Your task to perform on an android device: uninstall "Pinterest" Image 0: 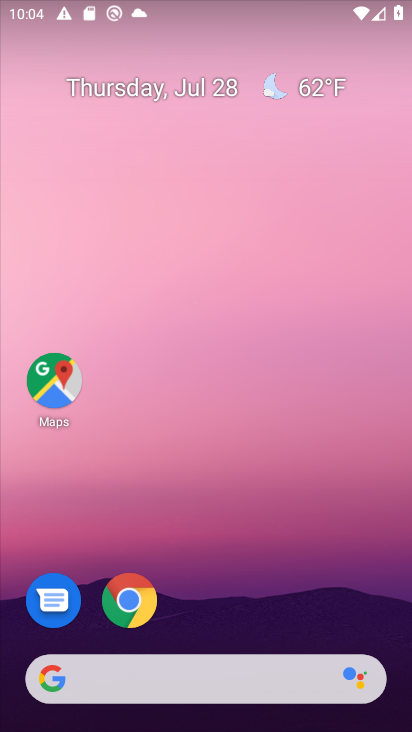
Step 0: drag from (242, 621) to (245, 7)
Your task to perform on an android device: uninstall "Pinterest" Image 1: 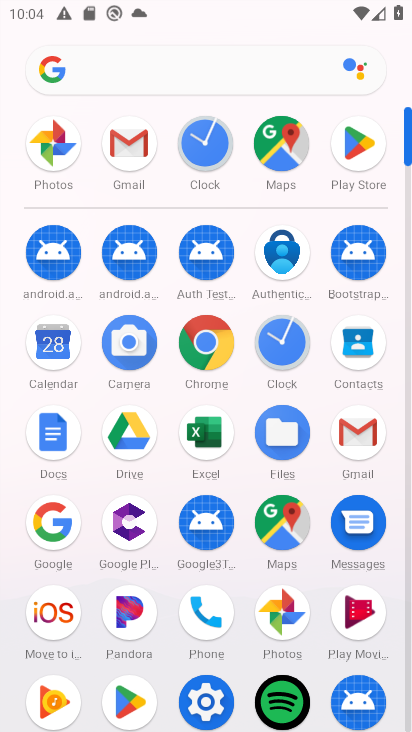
Step 1: click (349, 148)
Your task to perform on an android device: uninstall "Pinterest" Image 2: 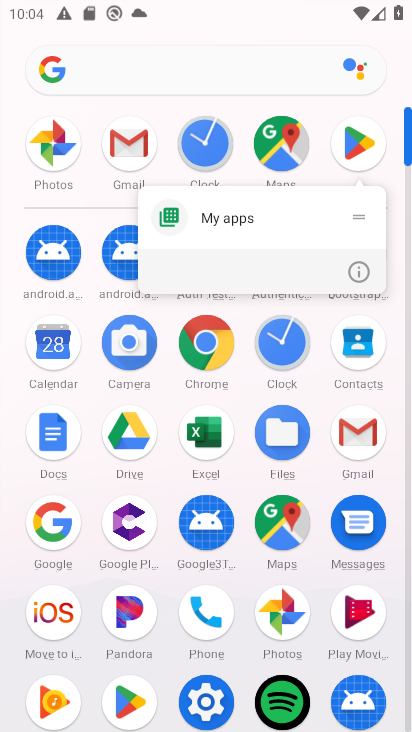
Step 2: click (349, 148)
Your task to perform on an android device: uninstall "Pinterest" Image 3: 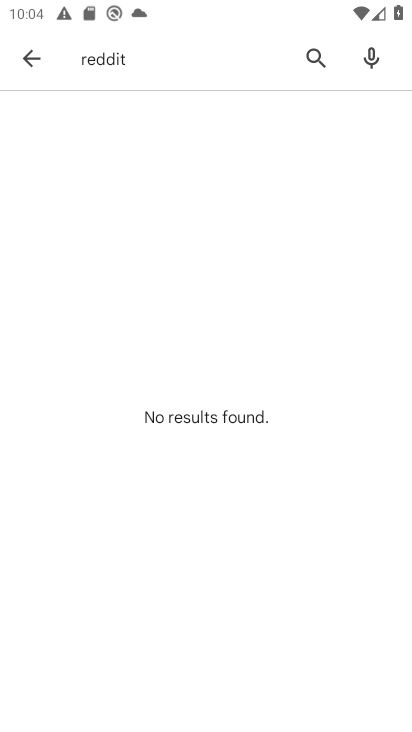
Step 3: click (311, 47)
Your task to perform on an android device: uninstall "Pinterest" Image 4: 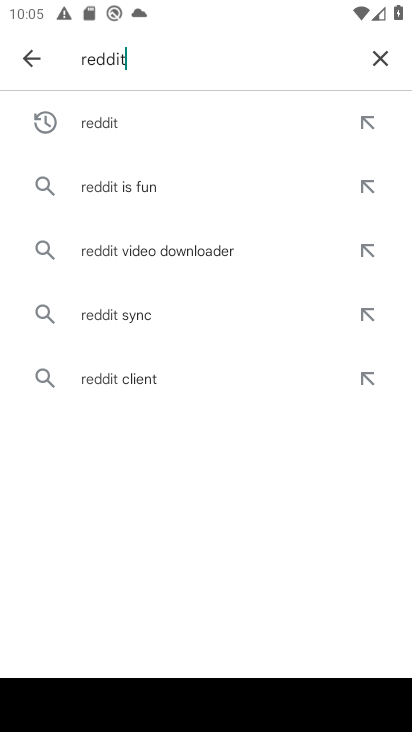
Step 4: click (389, 64)
Your task to perform on an android device: uninstall "Pinterest" Image 5: 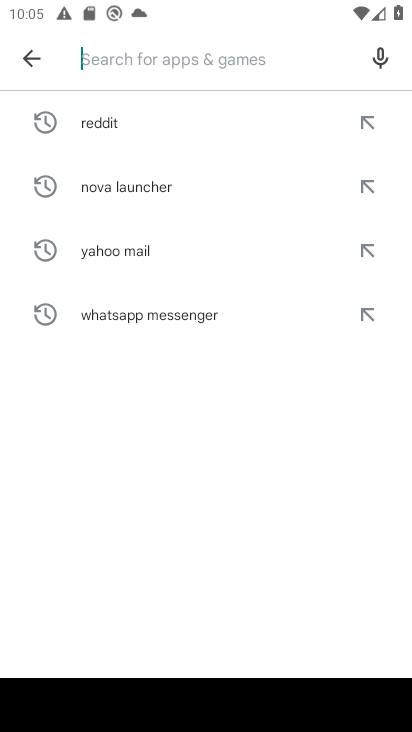
Step 5: click (188, 65)
Your task to perform on an android device: uninstall "Pinterest" Image 6: 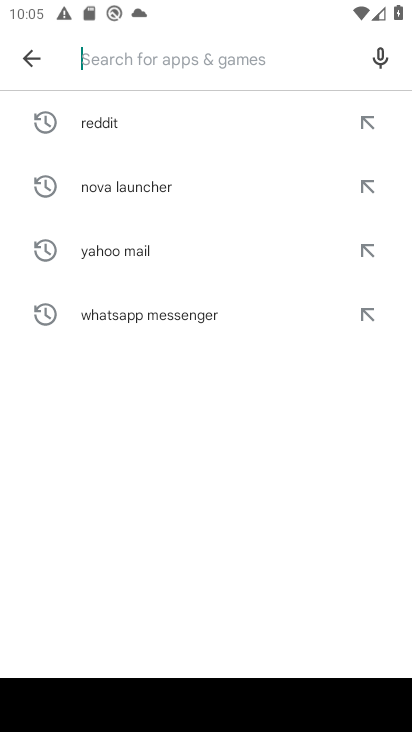
Step 6: type "Pinterest"
Your task to perform on an android device: uninstall "Pinterest" Image 7: 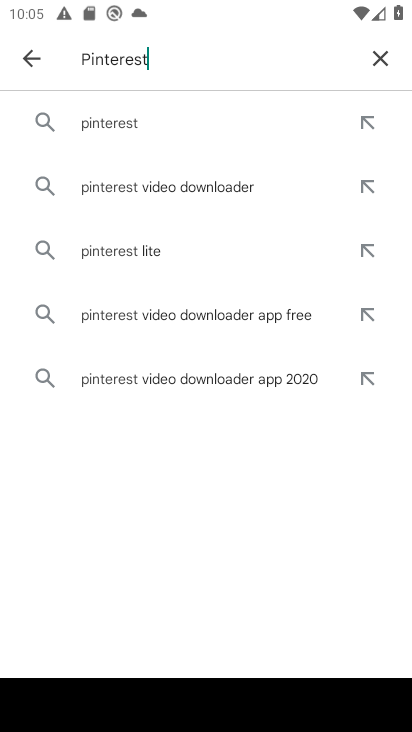
Step 7: click (106, 131)
Your task to perform on an android device: uninstall "Pinterest" Image 8: 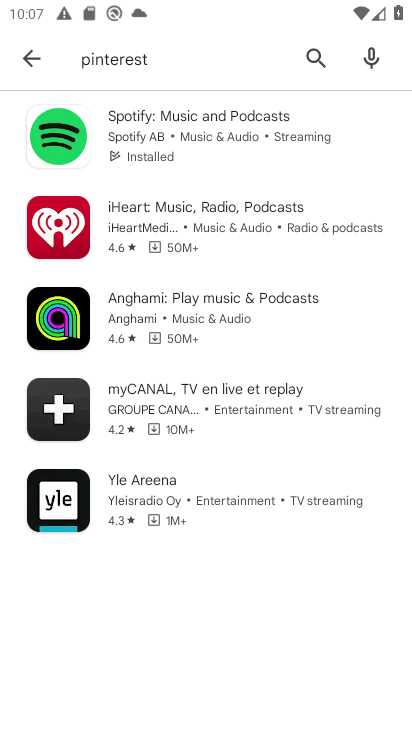
Step 8: task complete